Your task to perform on an android device: turn on the 12-hour format for clock Image 0: 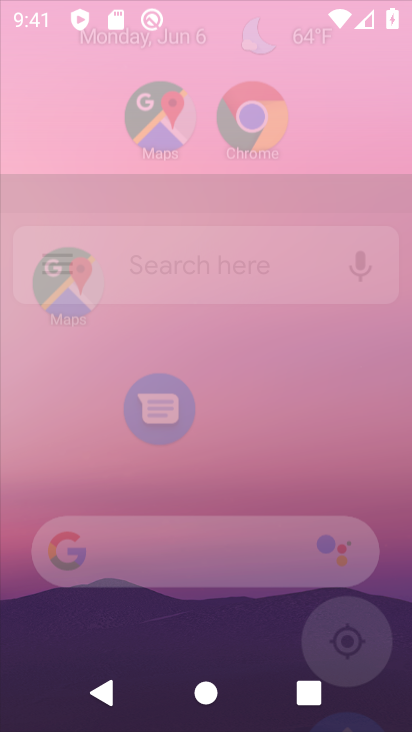
Step 0: press back button
Your task to perform on an android device: turn on the 12-hour format for clock Image 1: 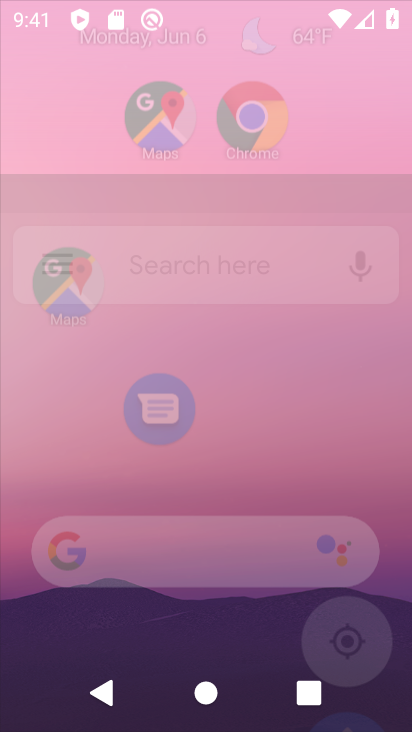
Step 1: click (131, 86)
Your task to perform on an android device: turn on the 12-hour format for clock Image 2: 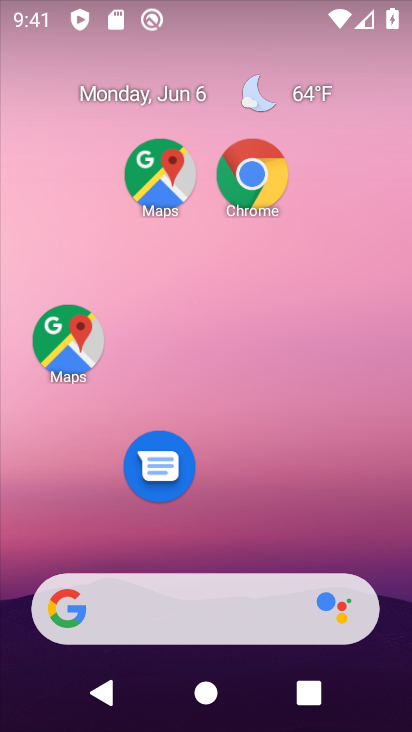
Step 2: drag from (266, 629) to (210, 91)
Your task to perform on an android device: turn on the 12-hour format for clock Image 3: 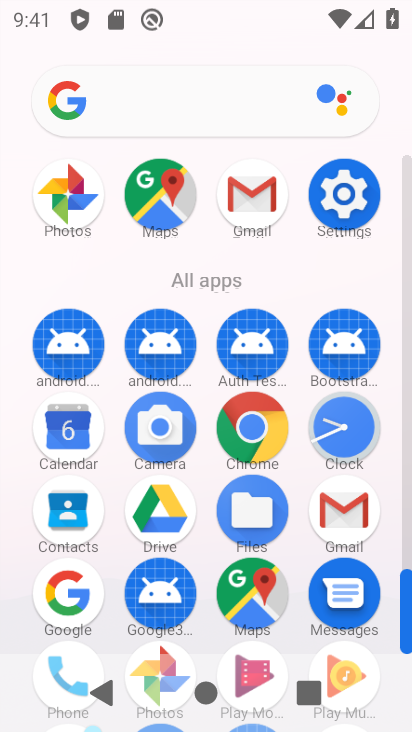
Step 3: click (339, 449)
Your task to perform on an android device: turn on the 12-hour format for clock Image 4: 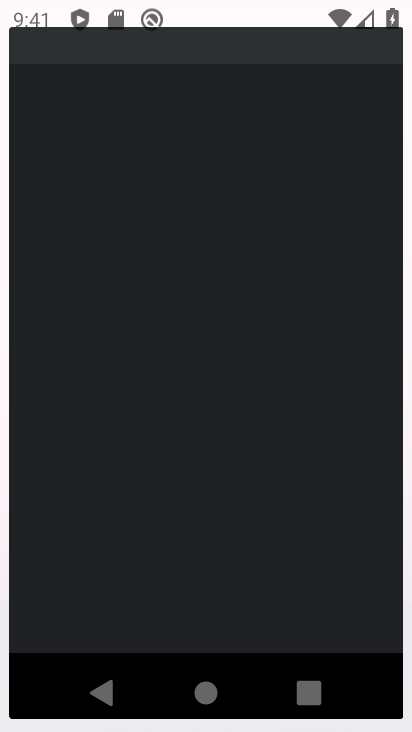
Step 4: click (341, 445)
Your task to perform on an android device: turn on the 12-hour format for clock Image 5: 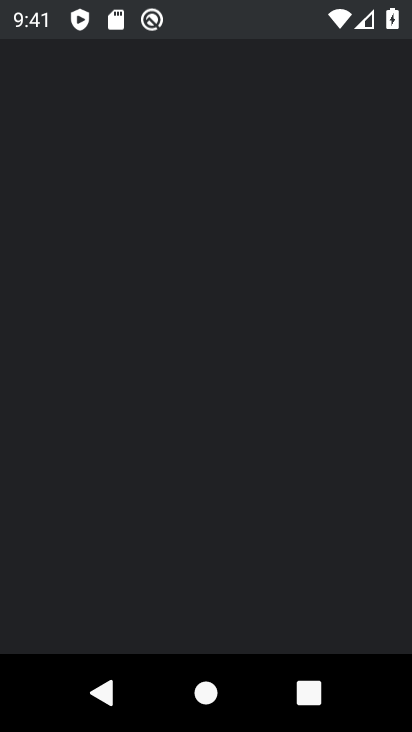
Step 5: click (341, 445)
Your task to perform on an android device: turn on the 12-hour format for clock Image 6: 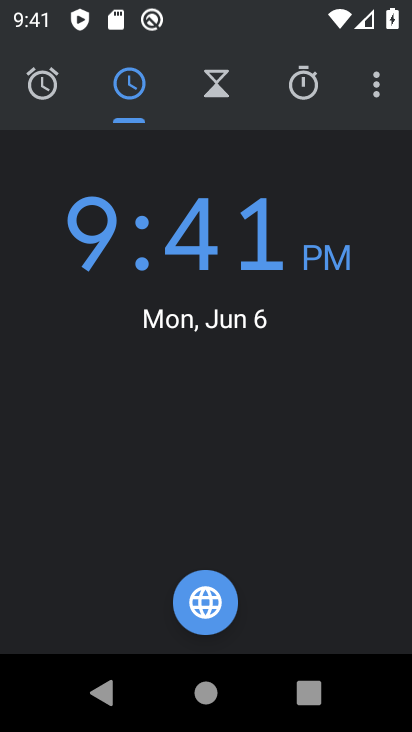
Step 6: click (373, 92)
Your task to perform on an android device: turn on the 12-hour format for clock Image 7: 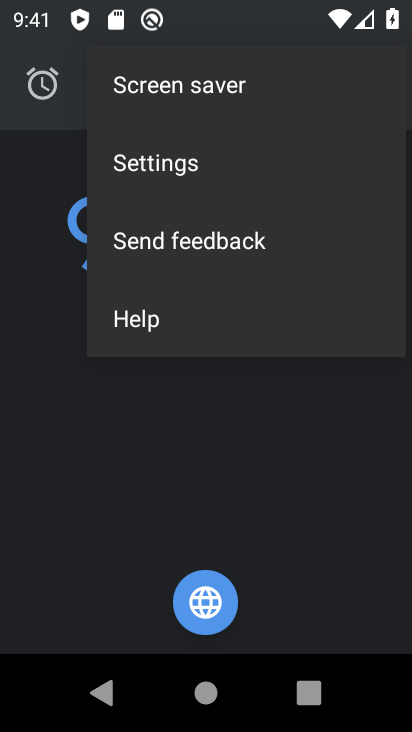
Step 7: click (151, 180)
Your task to perform on an android device: turn on the 12-hour format for clock Image 8: 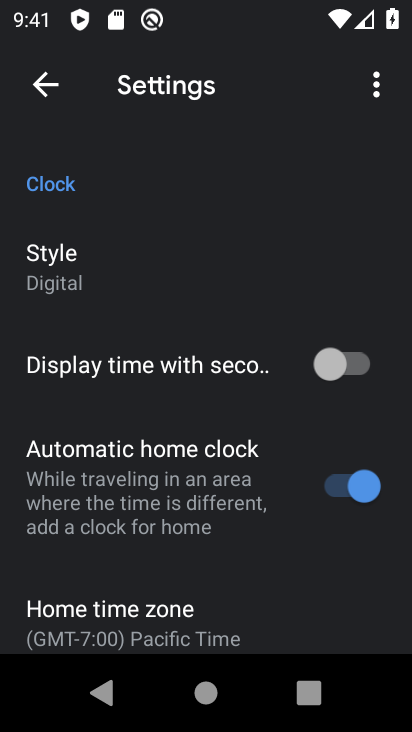
Step 8: drag from (210, 561) to (168, 113)
Your task to perform on an android device: turn on the 12-hour format for clock Image 9: 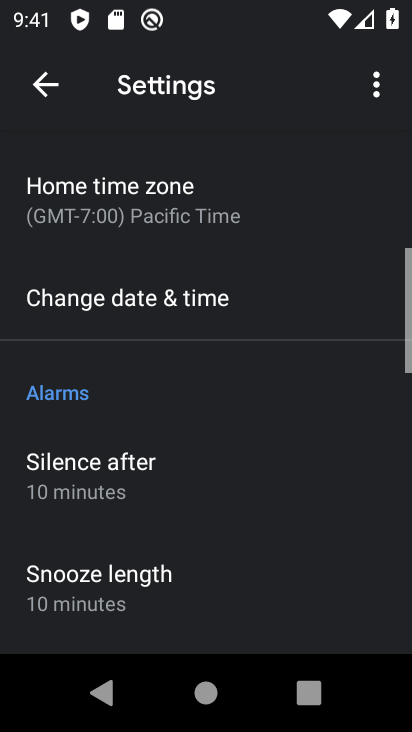
Step 9: drag from (218, 455) to (198, 136)
Your task to perform on an android device: turn on the 12-hour format for clock Image 10: 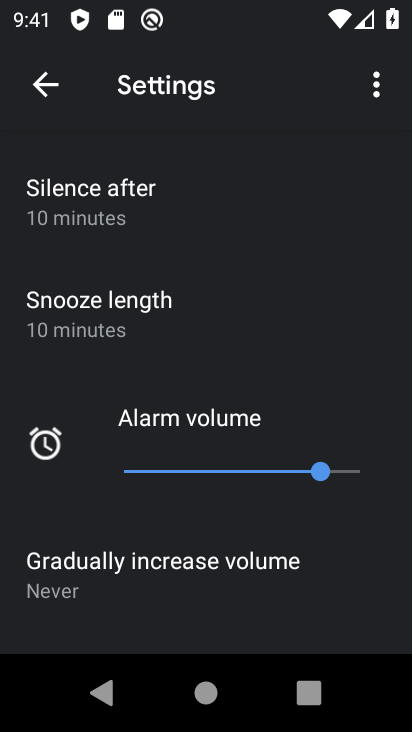
Step 10: drag from (185, 219) to (211, 586)
Your task to perform on an android device: turn on the 12-hour format for clock Image 11: 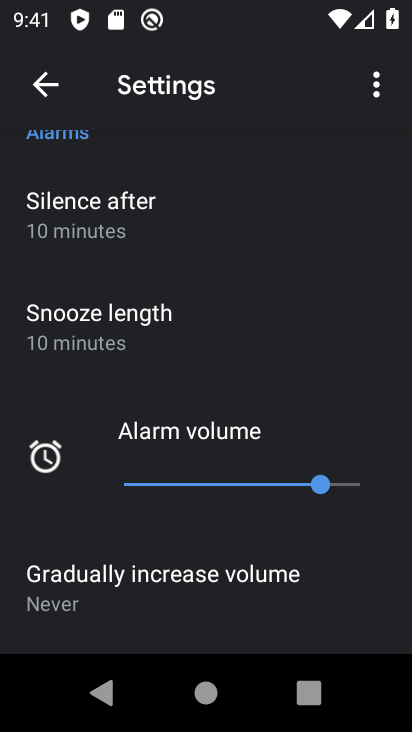
Step 11: drag from (164, 215) to (200, 449)
Your task to perform on an android device: turn on the 12-hour format for clock Image 12: 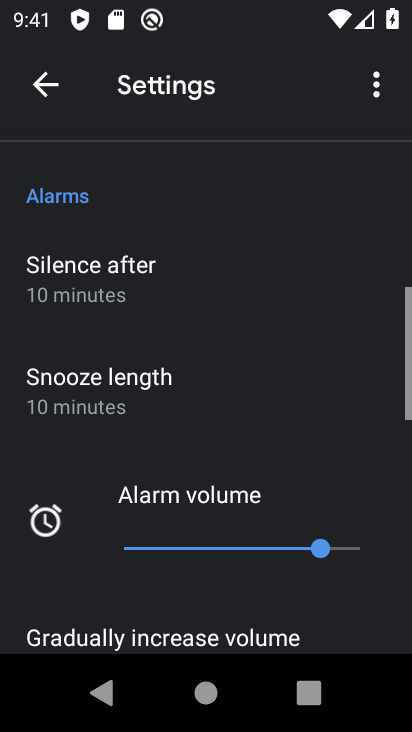
Step 12: drag from (245, 405) to (281, 509)
Your task to perform on an android device: turn on the 12-hour format for clock Image 13: 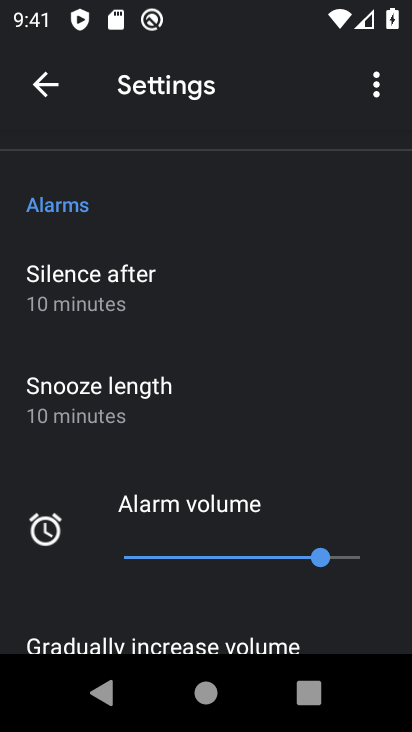
Step 13: drag from (198, 214) to (200, 466)
Your task to perform on an android device: turn on the 12-hour format for clock Image 14: 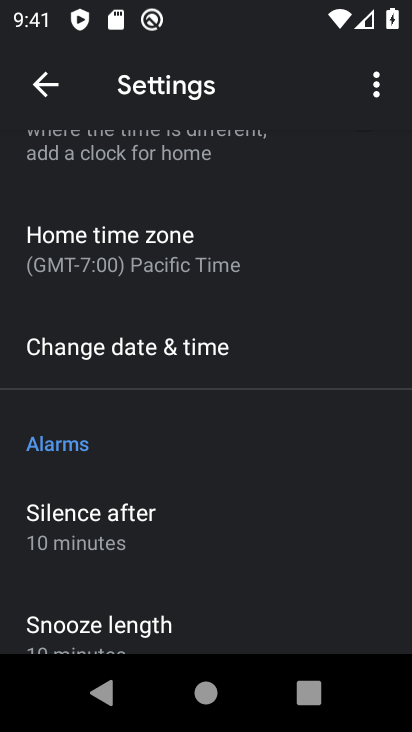
Step 14: click (136, 351)
Your task to perform on an android device: turn on the 12-hour format for clock Image 15: 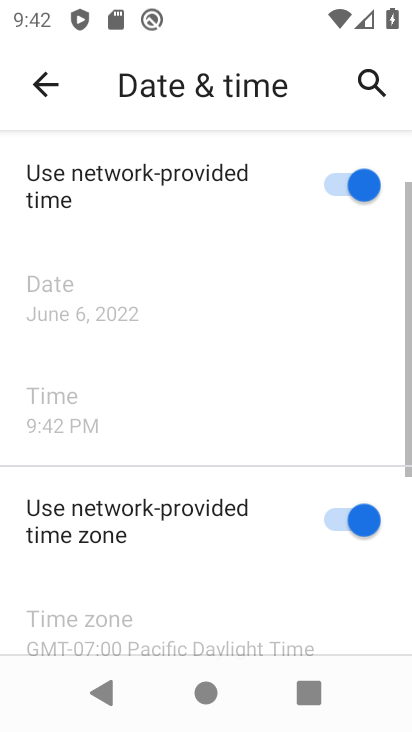
Step 15: task complete